Your task to perform on an android device: delete browsing data in the chrome app Image 0: 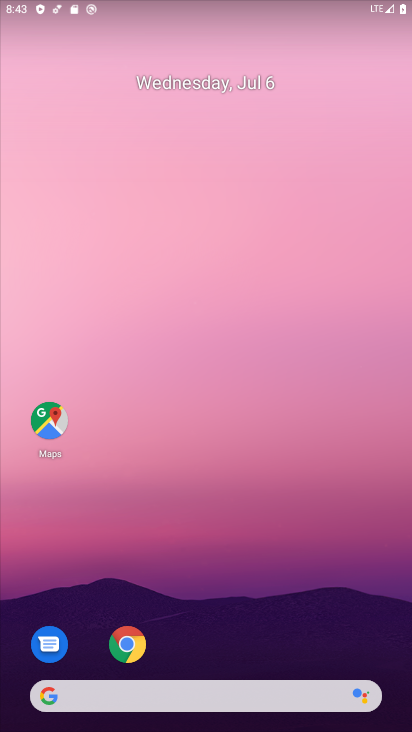
Step 0: click (130, 626)
Your task to perform on an android device: delete browsing data in the chrome app Image 1: 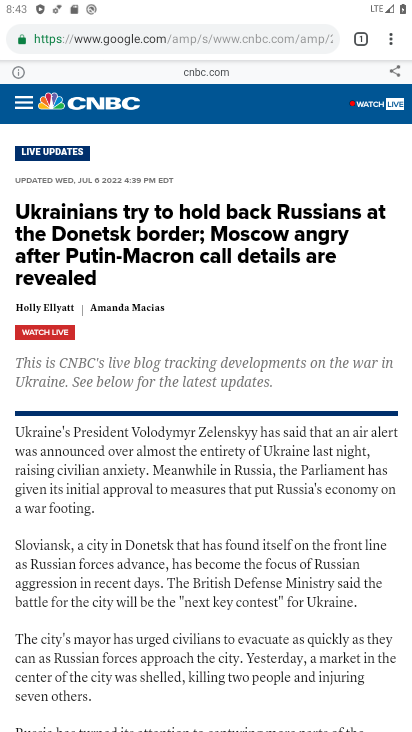
Step 1: click (397, 36)
Your task to perform on an android device: delete browsing data in the chrome app Image 2: 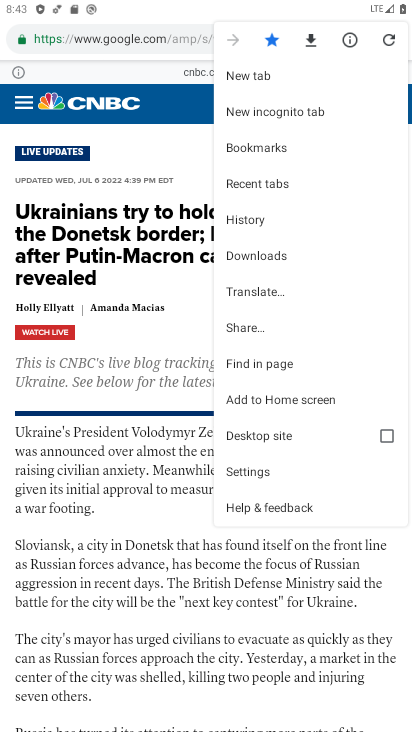
Step 2: click (393, 39)
Your task to perform on an android device: delete browsing data in the chrome app Image 3: 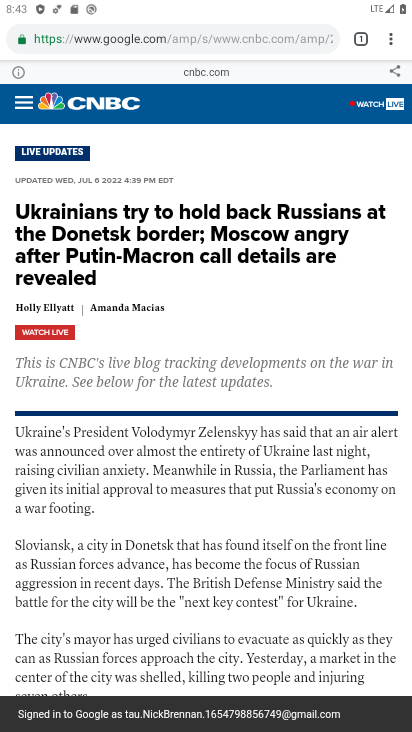
Step 3: click (391, 40)
Your task to perform on an android device: delete browsing data in the chrome app Image 4: 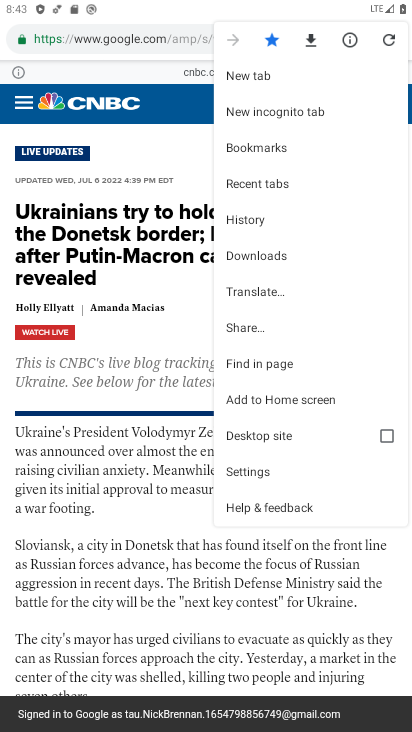
Step 4: click (257, 212)
Your task to perform on an android device: delete browsing data in the chrome app Image 5: 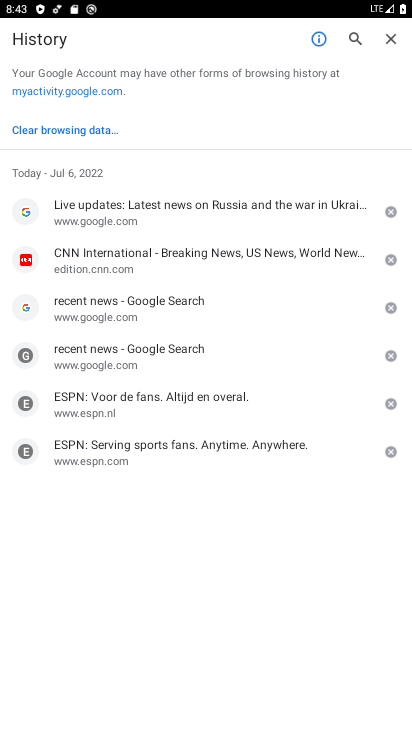
Step 5: click (68, 138)
Your task to perform on an android device: delete browsing data in the chrome app Image 6: 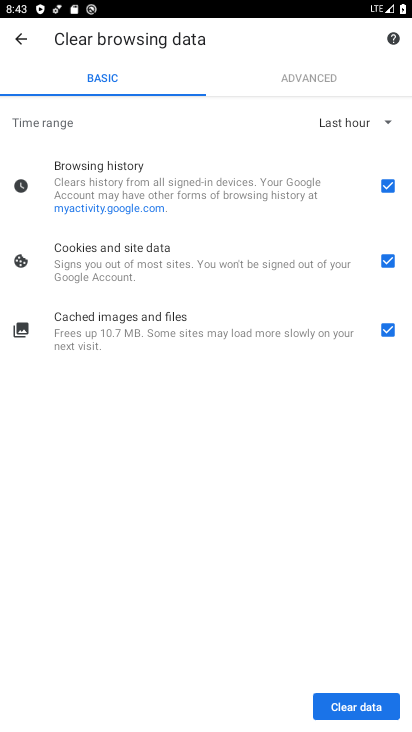
Step 6: click (356, 705)
Your task to perform on an android device: delete browsing data in the chrome app Image 7: 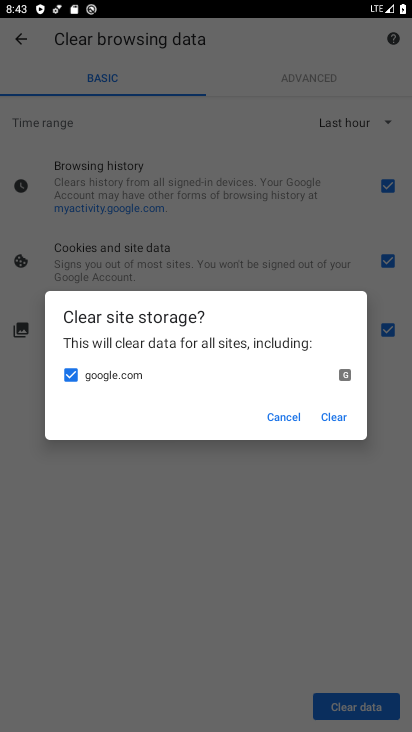
Step 7: click (330, 419)
Your task to perform on an android device: delete browsing data in the chrome app Image 8: 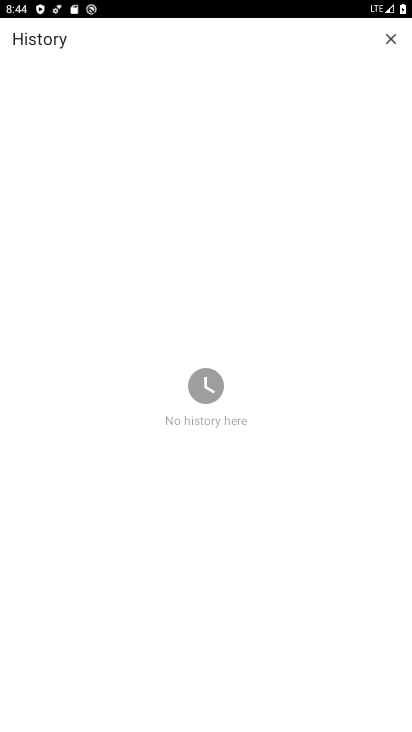
Step 8: task complete